Your task to perform on an android device: open a bookmark in the chrome app Image 0: 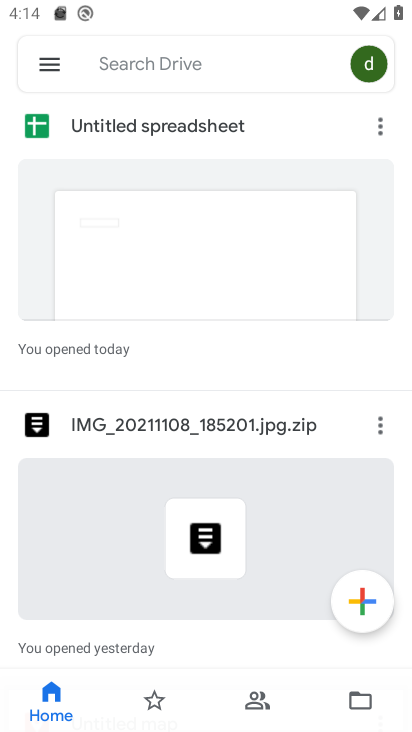
Step 0: press home button
Your task to perform on an android device: open a bookmark in the chrome app Image 1: 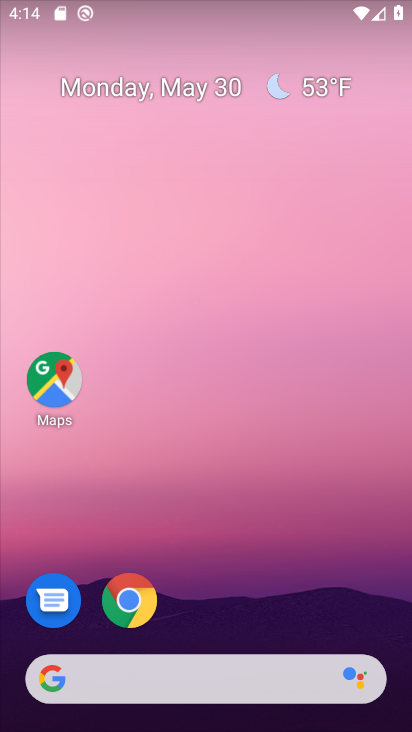
Step 1: drag from (320, 592) to (361, 42)
Your task to perform on an android device: open a bookmark in the chrome app Image 2: 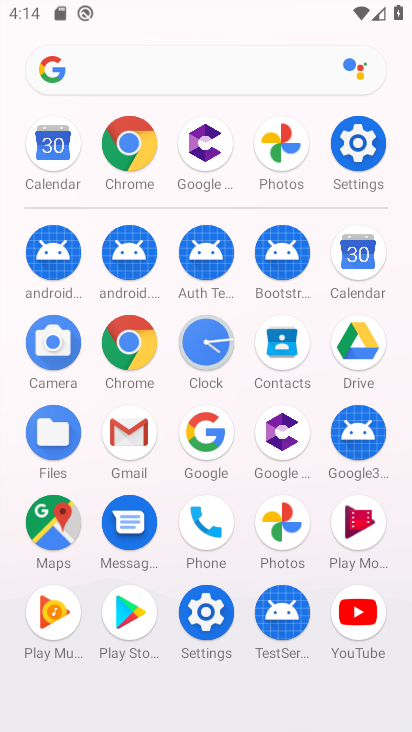
Step 2: click (128, 136)
Your task to perform on an android device: open a bookmark in the chrome app Image 3: 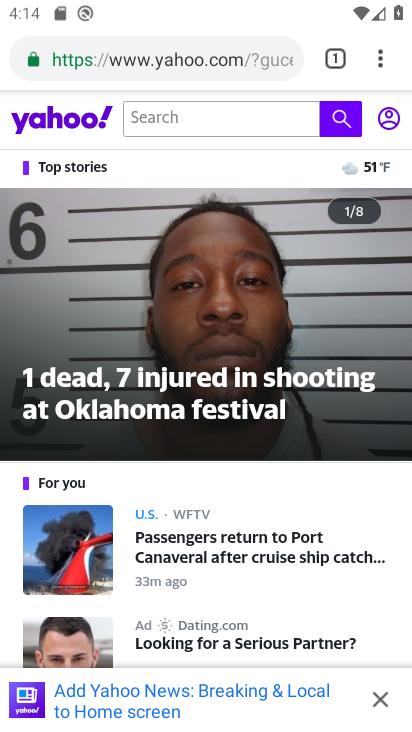
Step 3: task complete